Your task to perform on an android device: Go to internet settings Image 0: 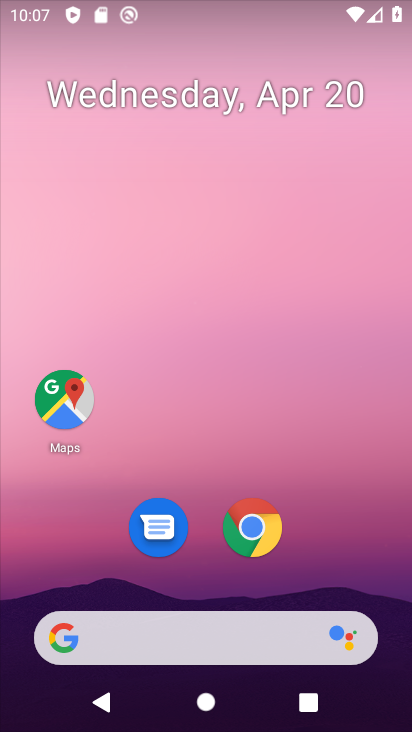
Step 0: drag from (206, 586) to (224, 0)
Your task to perform on an android device: Go to internet settings Image 1: 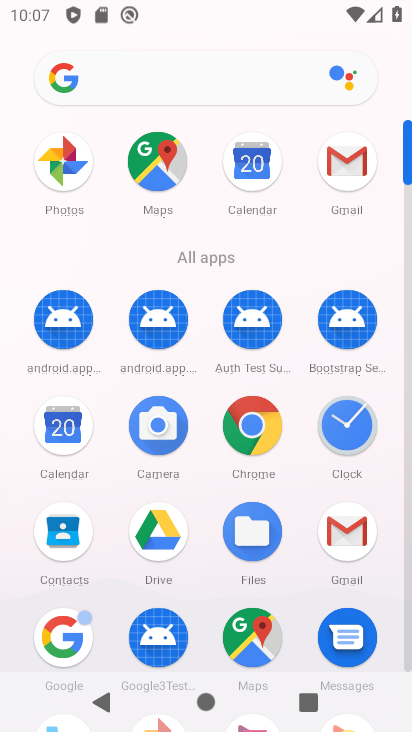
Step 1: drag from (209, 501) to (258, 119)
Your task to perform on an android device: Go to internet settings Image 2: 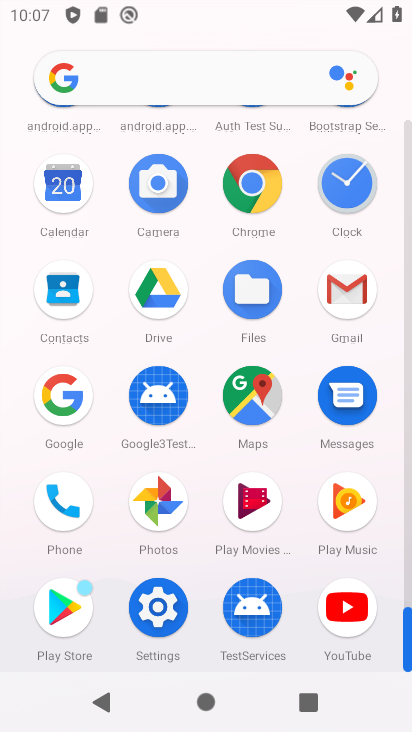
Step 2: click (160, 609)
Your task to perform on an android device: Go to internet settings Image 3: 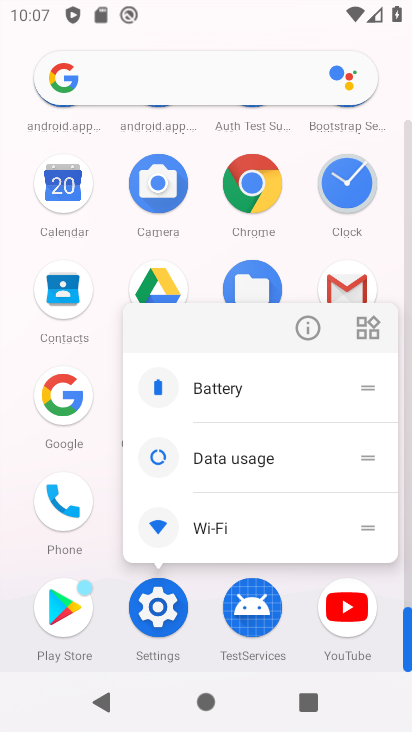
Step 3: click (160, 609)
Your task to perform on an android device: Go to internet settings Image 4: 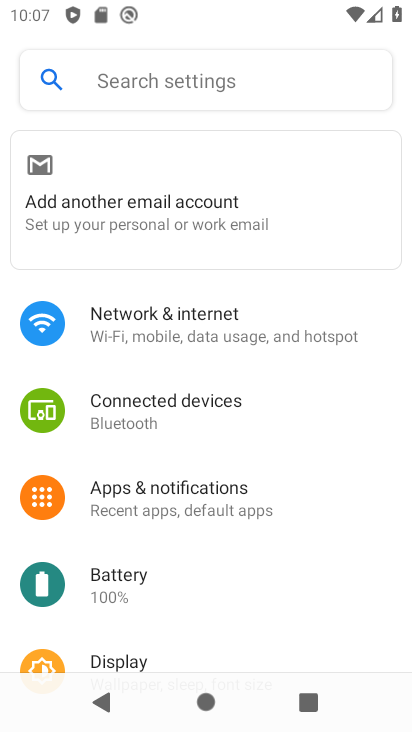
Step 4: click (135, 330)
Your task to perform on an android device: Go to internet settings Image 5: 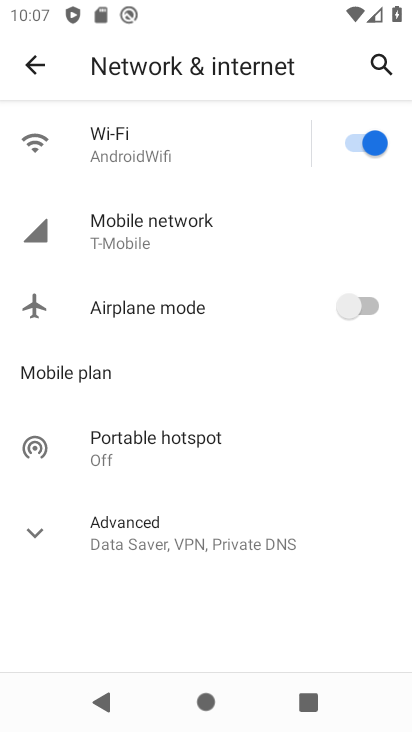
Step 5: task complete